Your task to perform on an android device: toggle priority inbox in the gmail app Image 0: 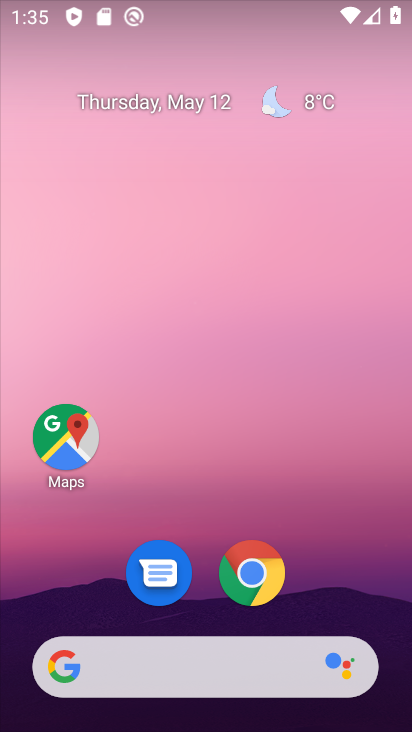
Step 0: drag from (335, 594) to (154, 54)
Your task to perform on an android device: toggle priority inbox in the gmail app Image 1: 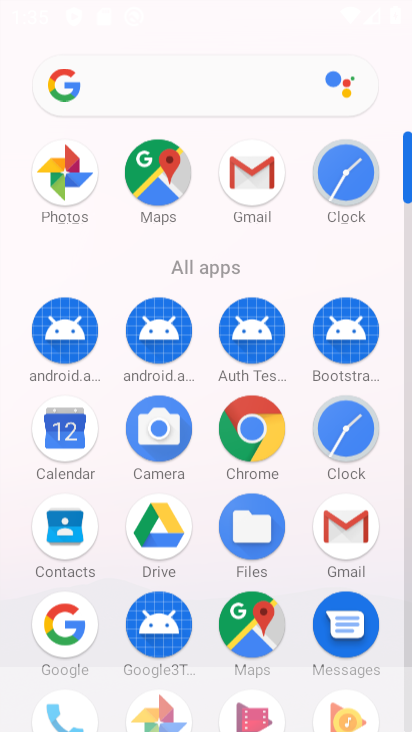
Step 1: drag from (331, 552) to (181, 143)
Your task to perform on an android device: toggle priority inbox in the gmail app Image 2: 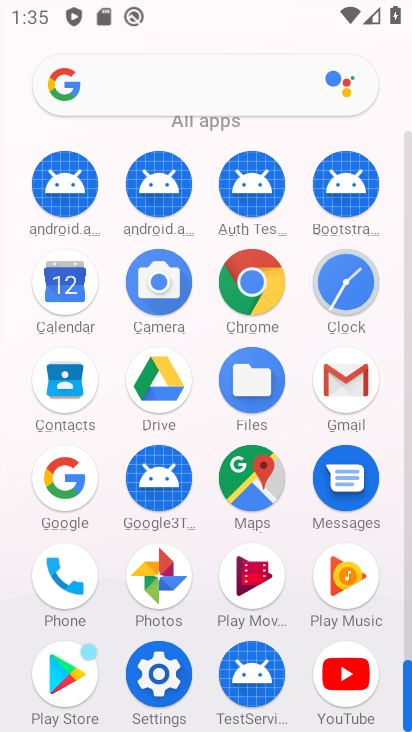
Step 2: click (348, 376)
Your task to perform on an android device: toggle priority inbox in the gmail app Image 3: 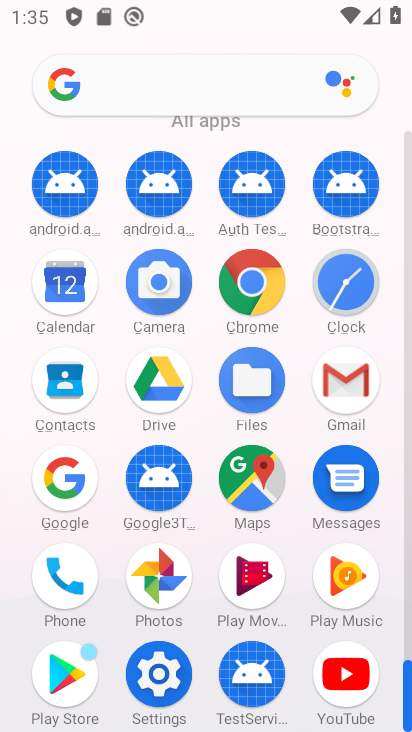
Step 3: click (348, 376)
Your task to perform on an android device: toggle priority inbox in the gmail app Image 4: 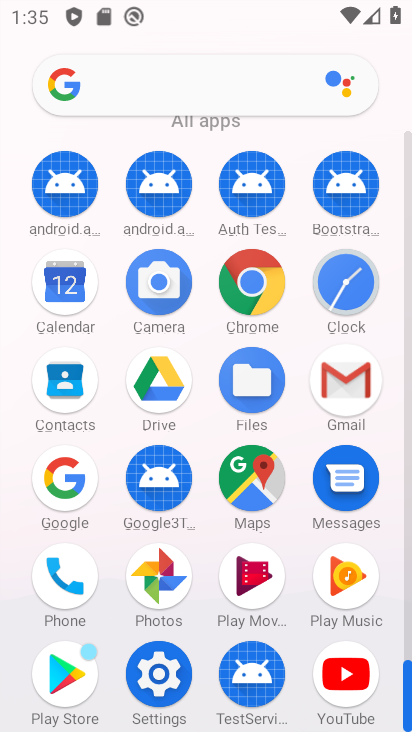
Step 4: click (335, 396)
Your task to perform on an android device: toggle priority inbox in the gmail app Image 5: 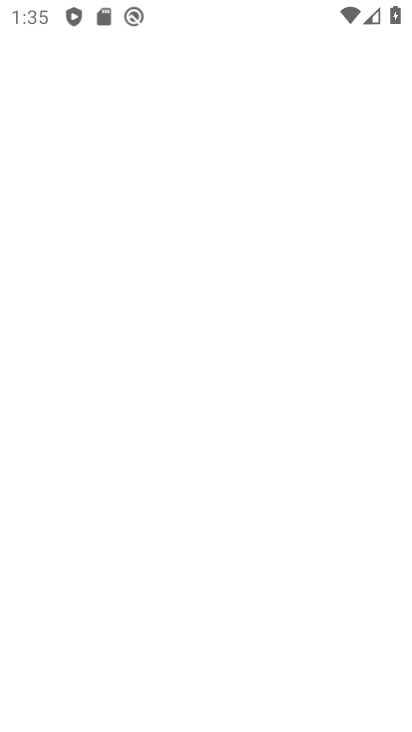
Step 5: click (335, 401)
Your task to perform on an android device: toggle priority inbox in the gmail app Image 6: 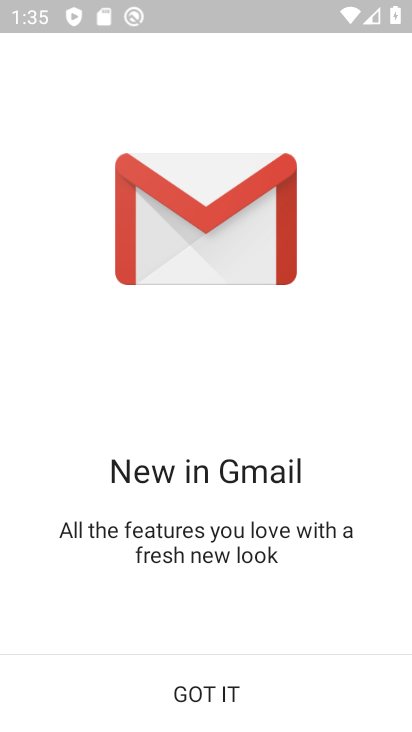
Step 6: click (226, 692)
Your task to perform on an android device: toggle priority inbox in the gmail app Image 7: 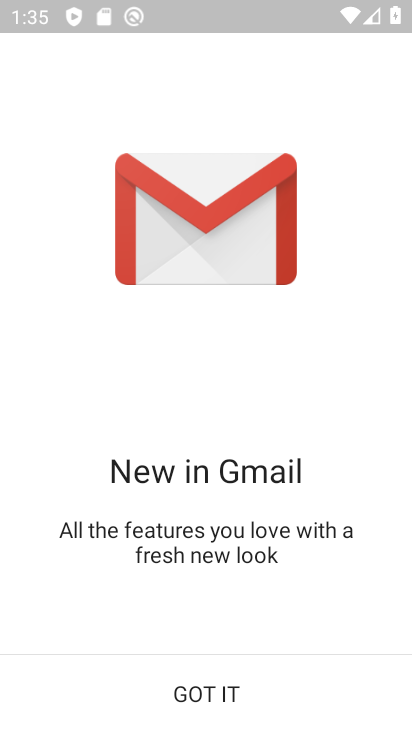
Step 7: click (205, 699)
Your task to perform on an android device: toggle priority inbox in the gmail app Image 8: 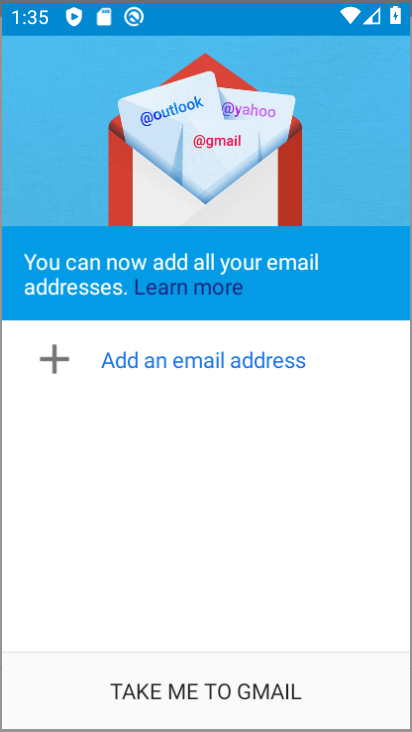
Step 8: click (204, 689)
Your task to perform on an android device: toggle priority inbox in the gmail app Image 9: 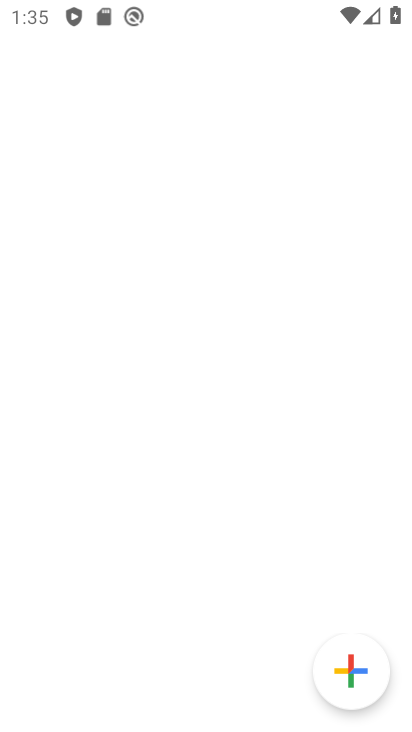
Step 9: click (205, 687)
Your task to perform on an android device: toggle priority inbox in the gmail app Image 10: 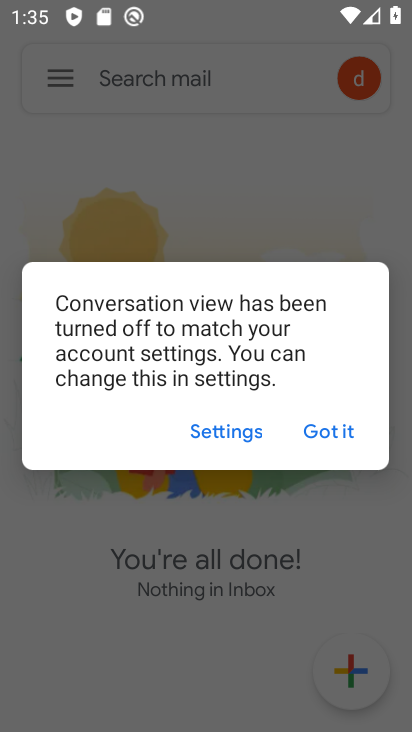
Step 10: click (322, 427)
Your task to perform on an android device: toggle priority inbox in the gmail app Image 11: 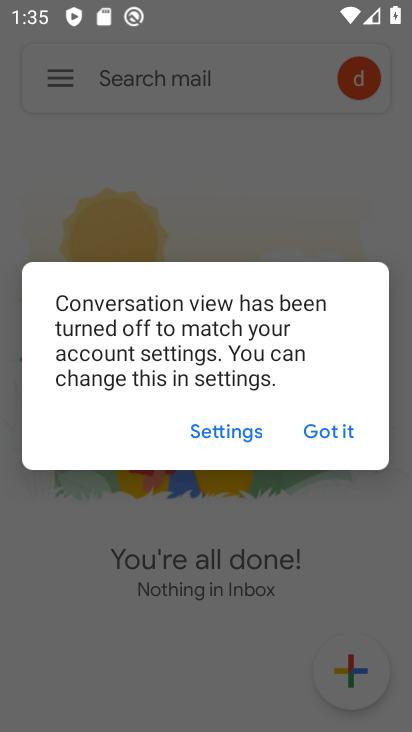
Step 11: click (322, 427)
Your task to perform on an android device: toggle priority inbox in the gmail app Image 12: 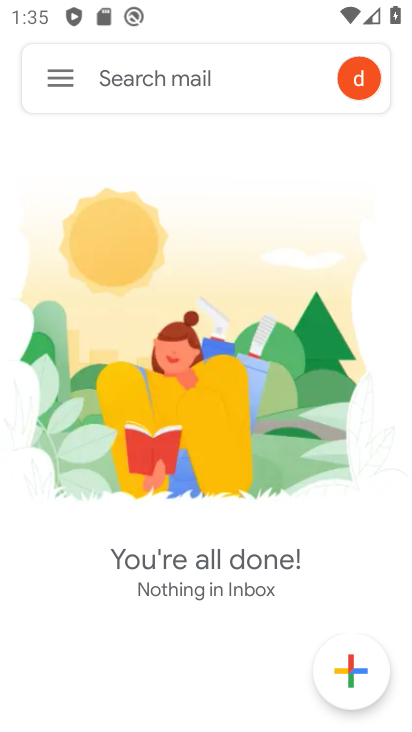
Step 12: click (321, 426)
Your task to perform on an android device: toggle priority inbox in the gmail app Image 13: 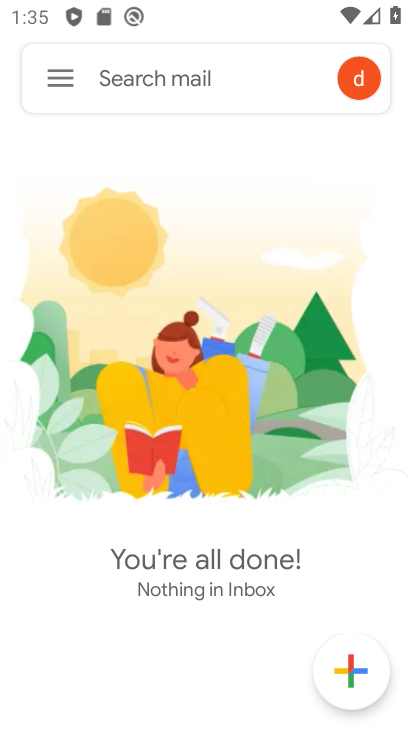
Step 13: click (50, 78)
Your task to perform on an android device: toggle priority inbox in the gmail app Image 14: 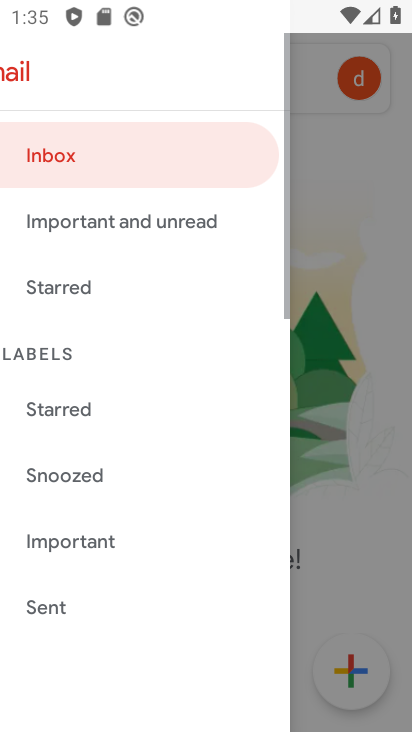
Step 14: click (46, 83)
Your task to perform on an android device: toggle priority inbox in the gmail app Image 15: 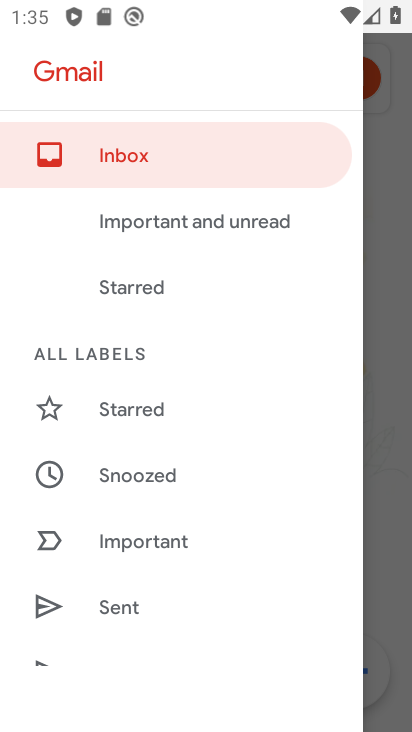
Step 15: drag from (144, 564) to (139, 136)
Your task to perform on an android device: toggle priority inbox in the gmail app Image 16: 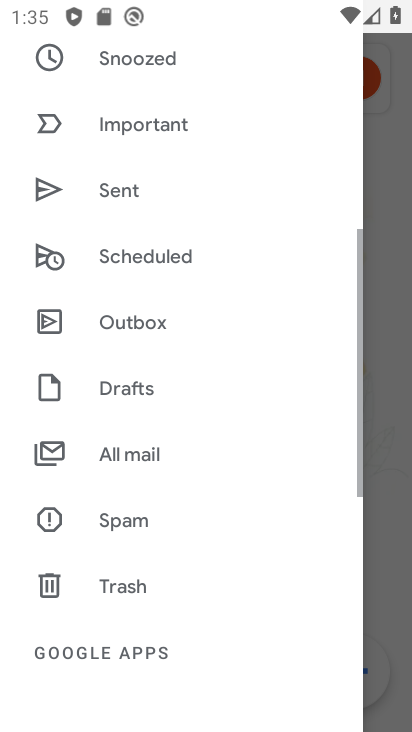
Step 16: drag from (129, 356) to (121, 14)
Your task to perform on an android device: toggle priority inbox in the gmail app Image 17: 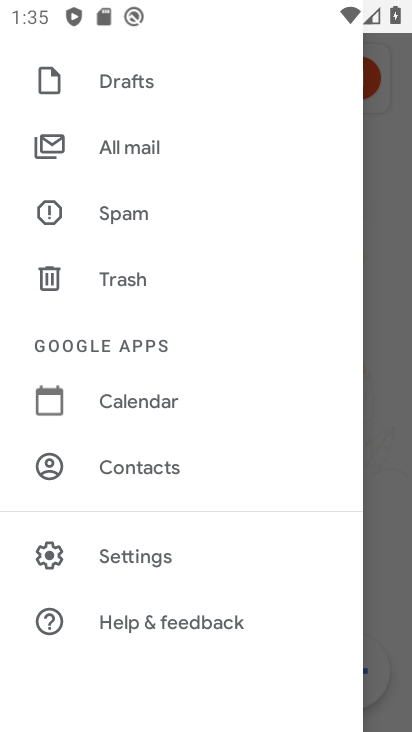
Step 17: click (130, 547)
Your task to perform on an android device: toggle priority inbox in the gmail app Image 18: 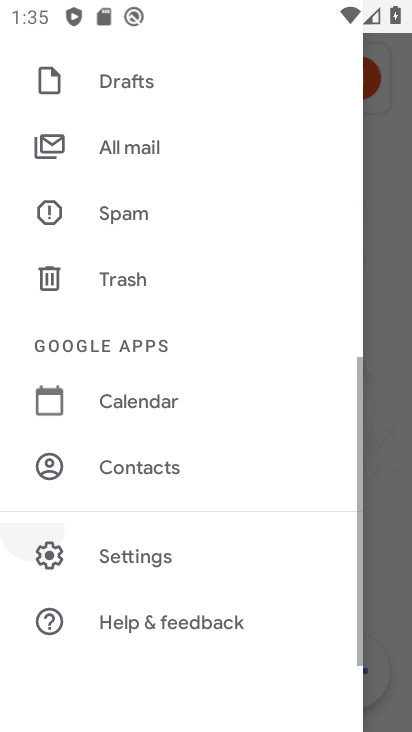
Step 18: click (130, 547)
Your task to perform on an android device: toggle priority inbox in the gmail app Image 19: 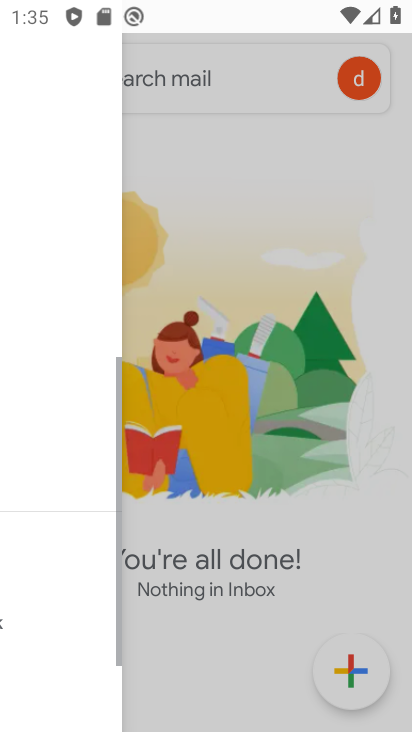
Step 19: click (115, 553)
Your task to perform on an android device: toggle priority inbox in the gmail app Image 20: 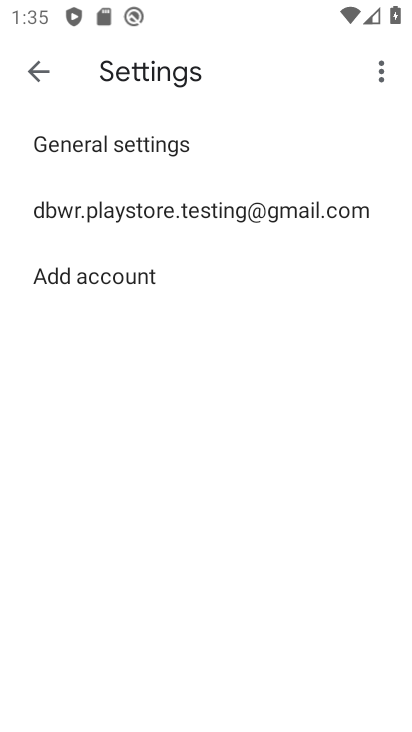
Step 20: click (129, 217)
Your task to perform on an android device: toggle priority inbox in the gmail app Image 21: 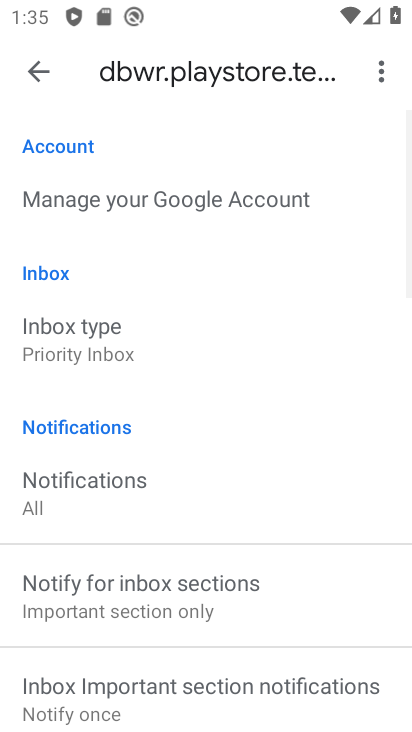
Step 21: click (62, 348)
Your task to perform on an android device: toggle priority inbox in the gmail app Image 22: 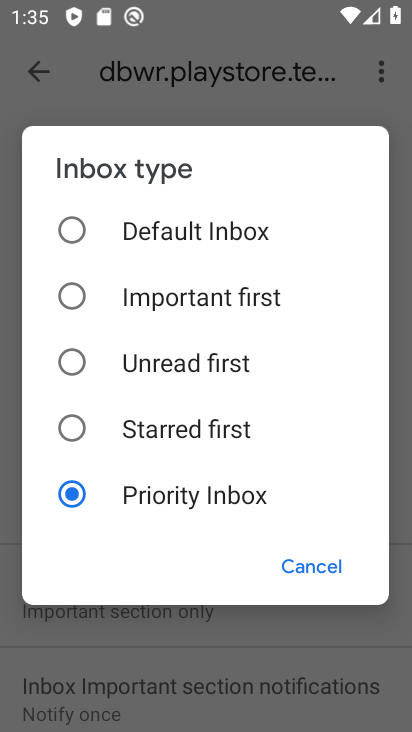
Step 22: click (323, 557)
Your task to perform on an android device: toggle priority inbox in the gmail app Image 23: 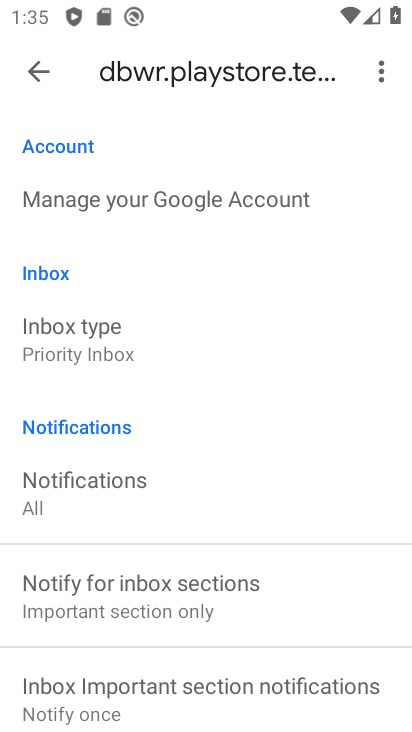
Step 23: task complete